Your task to perform on an android device: find which apps use the phone's location Image 0: 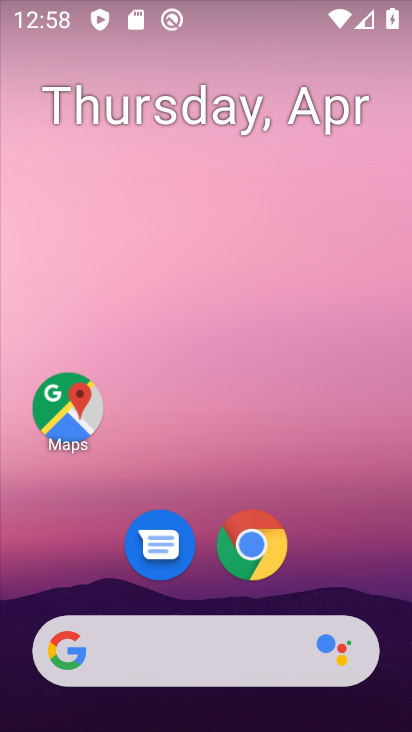
Step 0: drag from (224, 580) to (337, 232)
Your task to perform on an android device: find which apps use the phone's location Image 1: 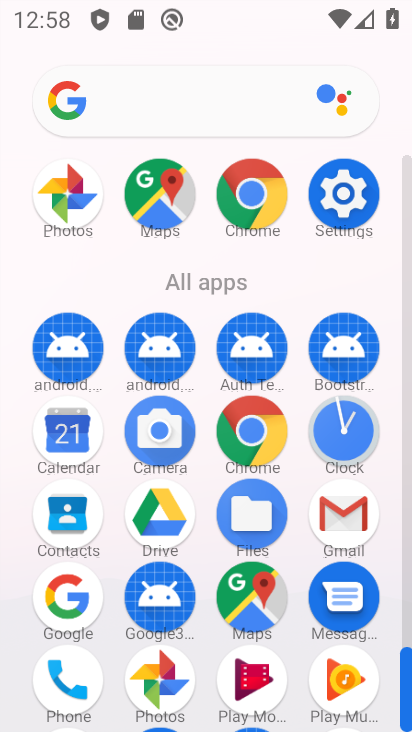
Step 1: click (344, 213)
Your task to perform on an android device: find which apps use the phone's location Image 2: 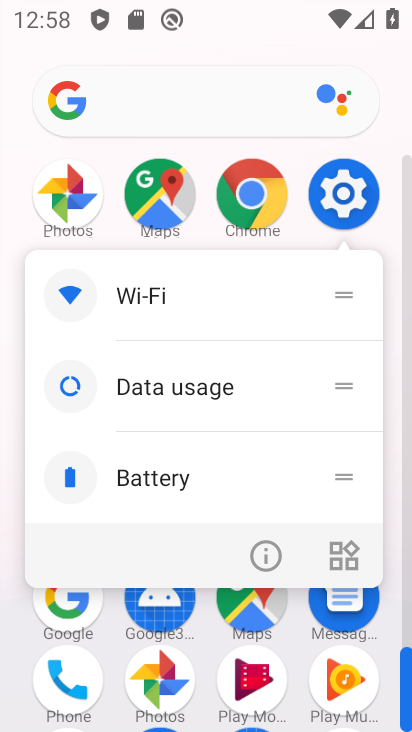
Step 2: click (346, 202)
Your task to perform on an android device: find which apps use the phone's location Image 3: 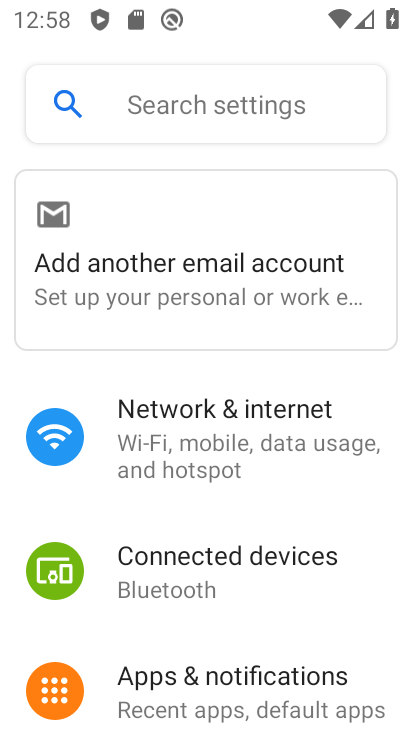
Step 3: drag from (221, 628) to (349, 196)
Your task to perform on an android device: find which apps use the phone's location Image 4: 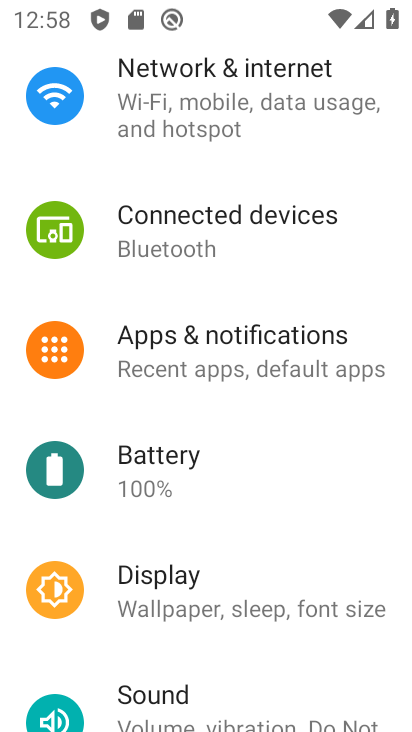
Step 4: drag from (218, 454) to (339, 143)
Your task to perform on an android device: find which apps use the phone's location Image 5: 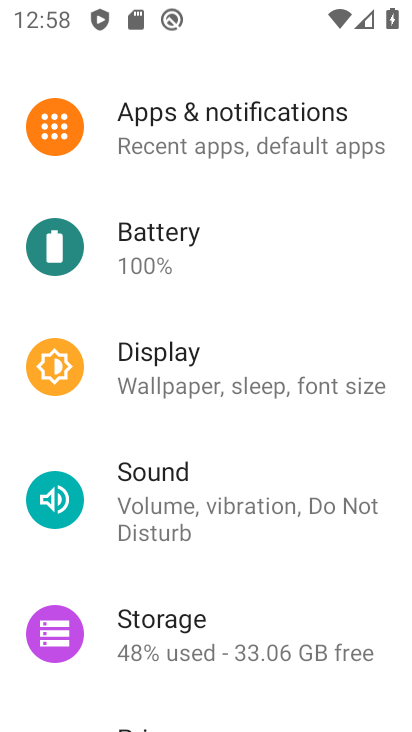
Step 5: drag from (175, 593) to (368, 197)
Your task to perform on an android device: find which apps use the phone's location Image 6: 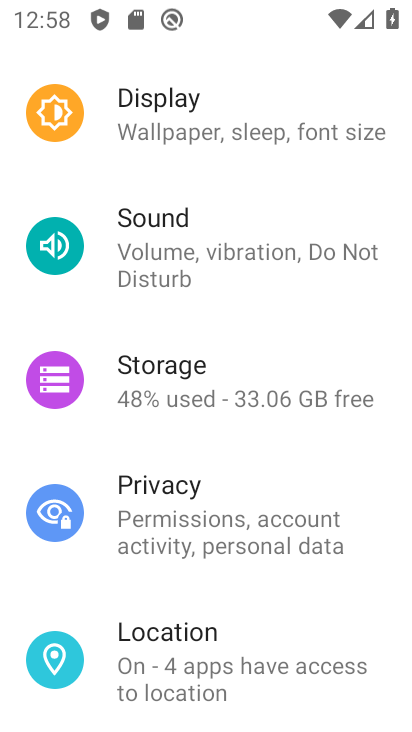
Step 6: click (194, 652)
Your task to perform on an android device: find which apps use the phone's location Image 7: 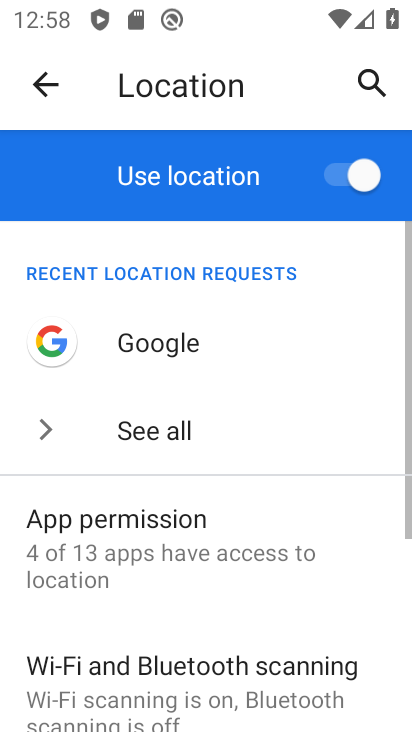
Step 7: click (125, 520)
Your task to perform on an android device: find which apps use the phone's location Image 8: 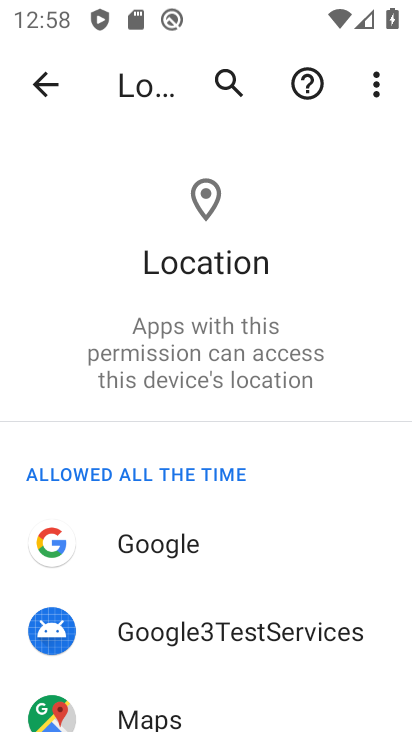
Step 8: drag from (202, 541) to (311, 183)
Your task to perform on an android device: find which apps use the phone's location Image 9: 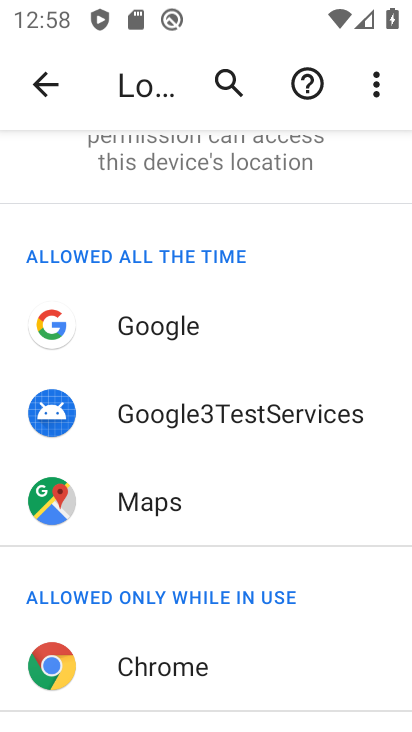
Step 9: drag from (195, 638) to (287, 231)
Your task to perform on an android device: find which apps use the phone's location Image 10: 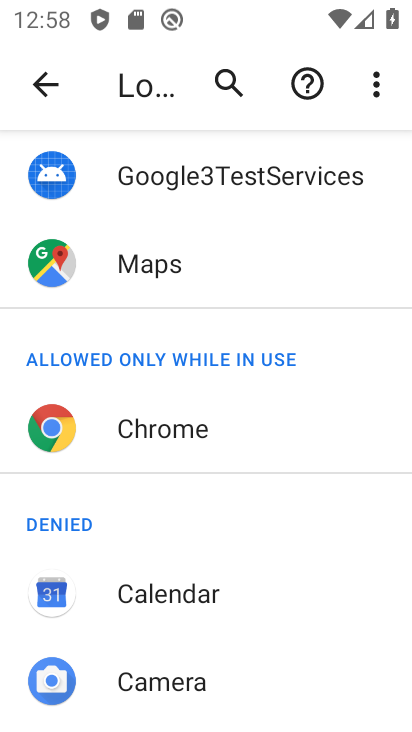
Step 10: drag from (213, 635) to (382, 121)
Your task to perform on an android device: find which apps use the phone's location Image 11: 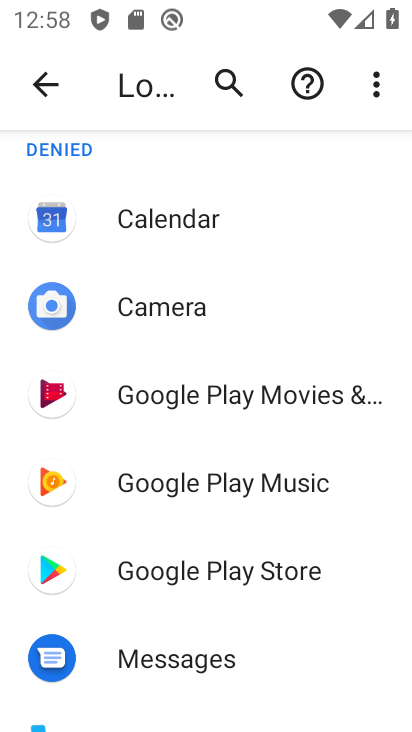
Step 11: drag from (177, 655) to (366, 137)
Your task to perform on an android device: find which apps use the phone's location Image 12: 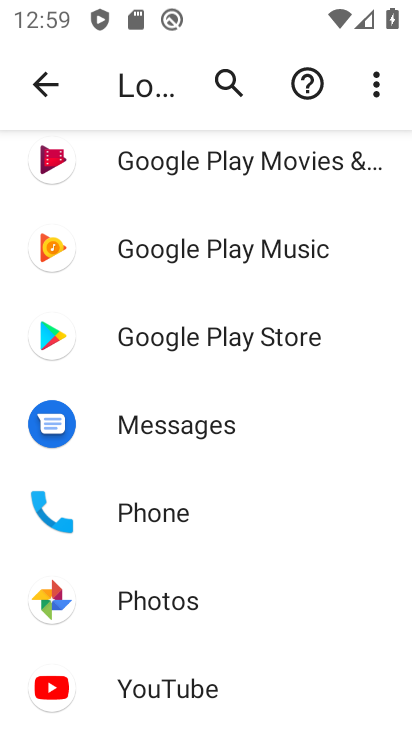
Step 12: click (165, 512)
Your task to perform on an android device: find which apps use the phone's location Image 13: 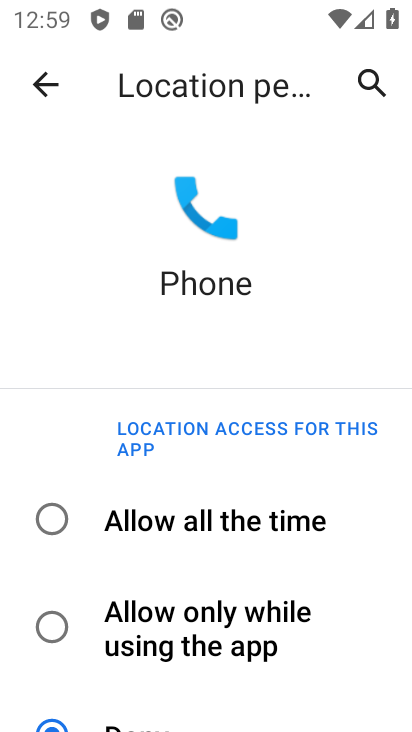
Step 13: task complete